Your task to perform on an android device: Go to Yahoo.com Image 0: 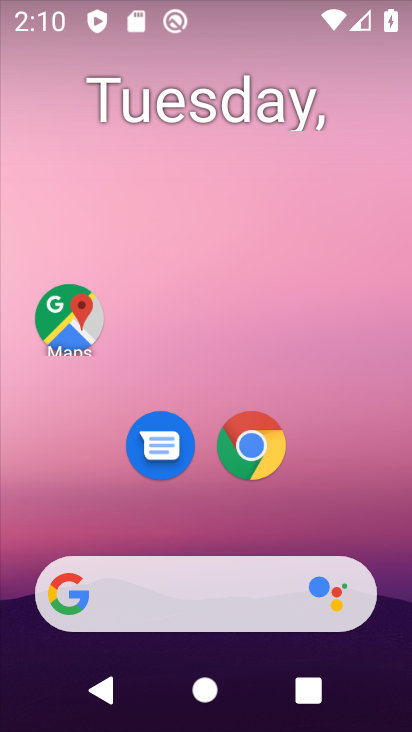
Step 0: click (259, 465)
Your task to perform on an android device: Go to Yahoo.com Image 1: 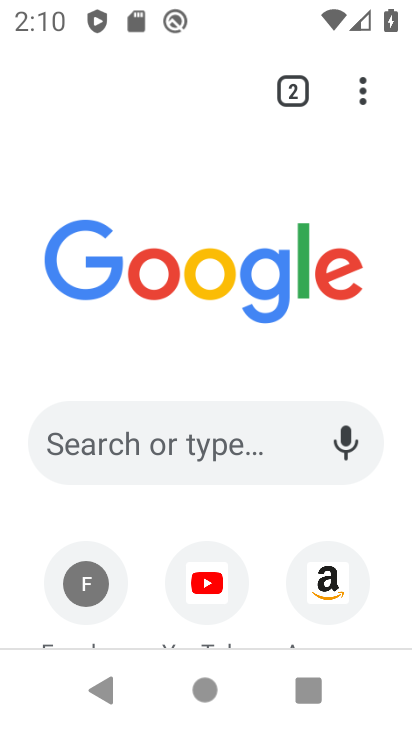
Step 1: drag from (207, 553) to (326, 195)
Your task to perform on an android device: Go to Yahoo.com Image 2: 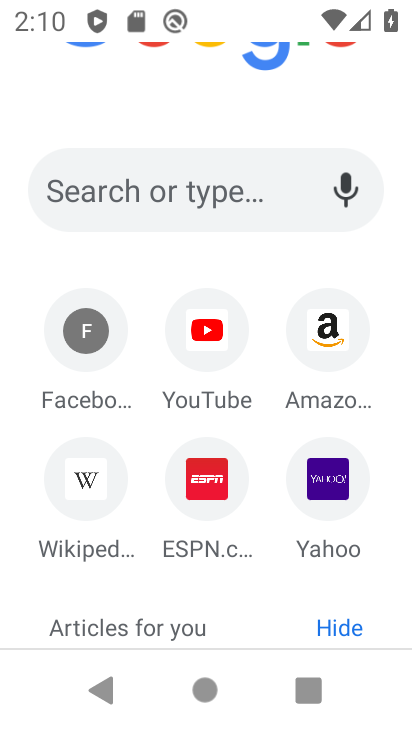
Step 2: click (336, 487)
Your task to perform on an android device: Go to Yahoo.com Image 3: 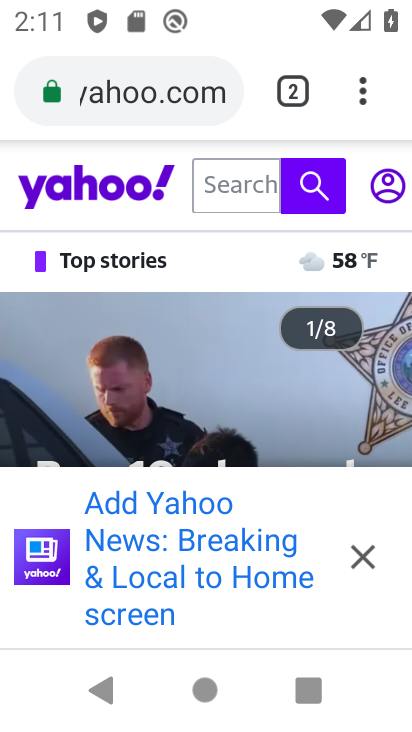
Step 3: task complete